Your task to perform on an android device: add a label to a message in the gmail app Image 0: 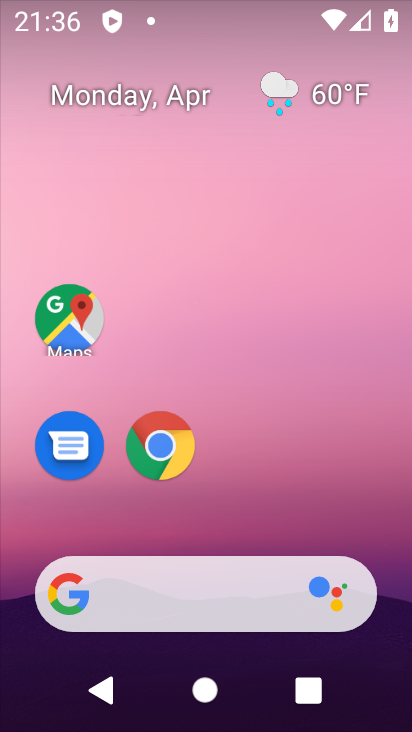
Step 0: drag from (332, 505) to (382, 60)
Your task to perform on an android device: add a label to a message in the gmail app Image 1: 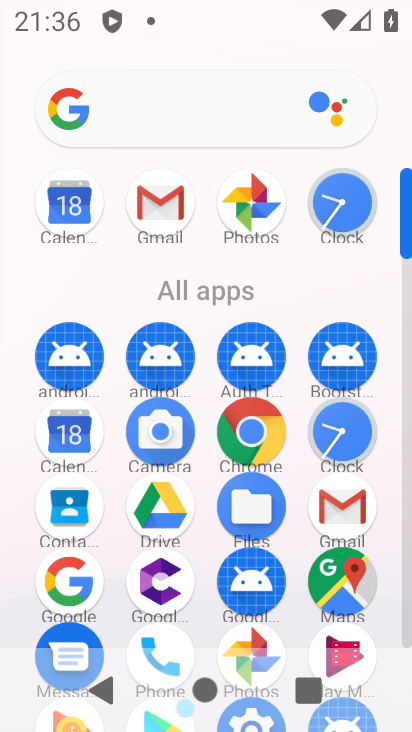
Step 1: click (171, 196)
Your task to perform on an android device: add a label to a message in the gmail app Image 2: 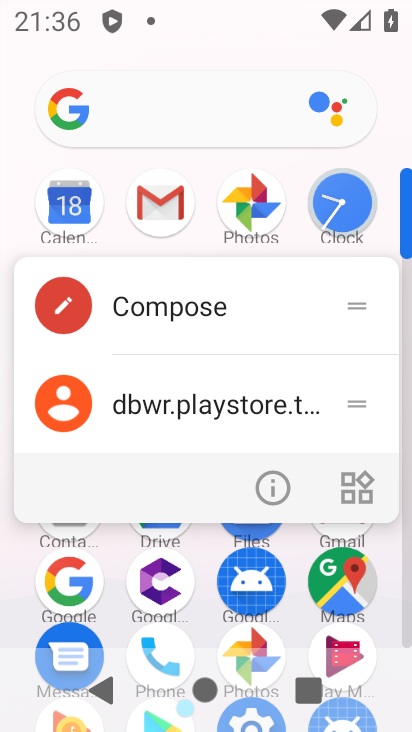
Step 2: click (171, 193)
Your task to perform on an android device: add a label to a message in the gmail app Image 3: 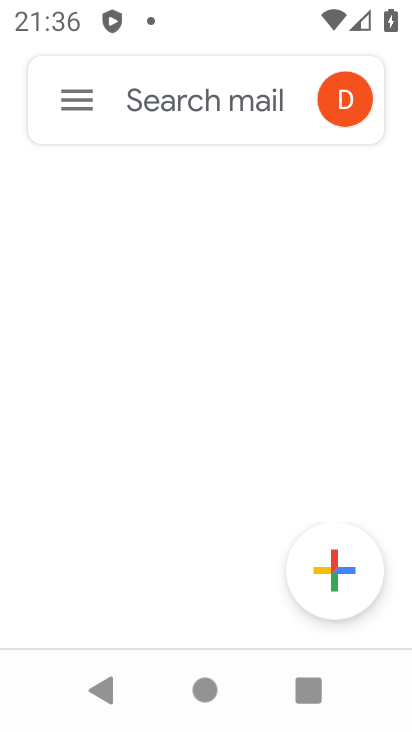
Step 3: click (84, 101)
Your task to perform on an android device: add a label to a message in the gmail app Image 4: 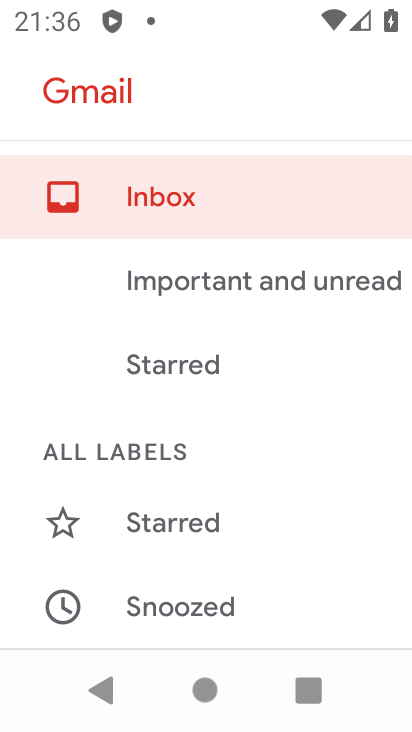
Step 4: drag from (274, 596) to (271, 126)
Your task to perform on an android device: add a label to a message in the gmail app Image 5: 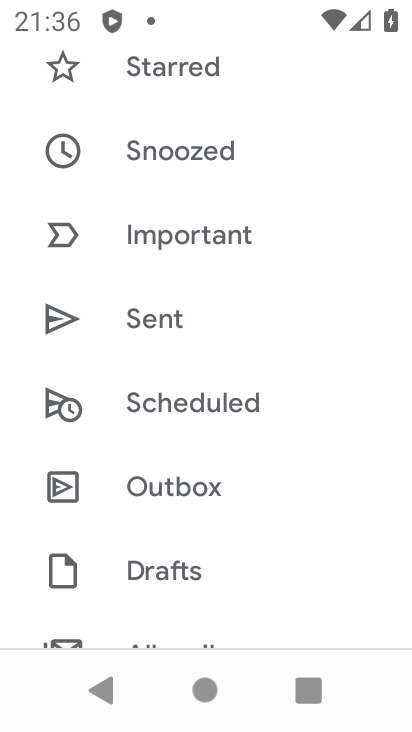
Step 5: drag from (236, 462) to (263, 132)
Your task to perform on an android device: add a label to a message in the gmail app Image 6: 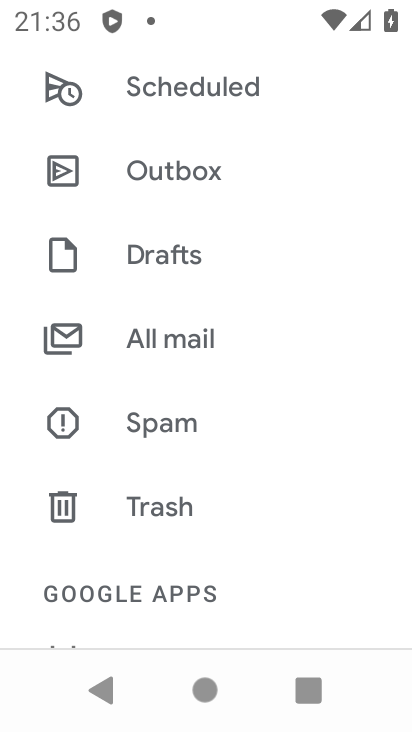
Step 6: click (210, 330)
Your task to perform on an android device: add a label to a message in the gmail app Image 7: 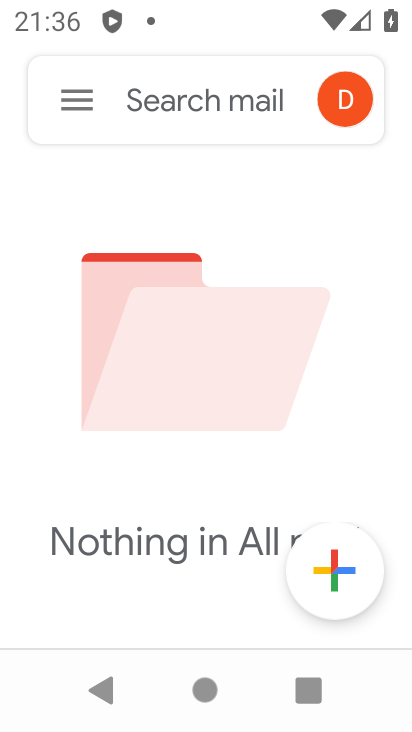
Step 7: task complete